Your task to perform on an android device: Open settings on Google Maps Image 0: 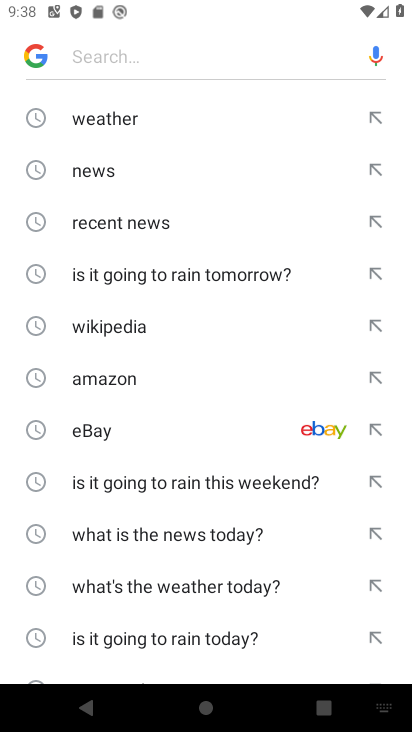
Step 0: press back button
Your task to perform on an android device: Open settings on Google Maps Image 1: 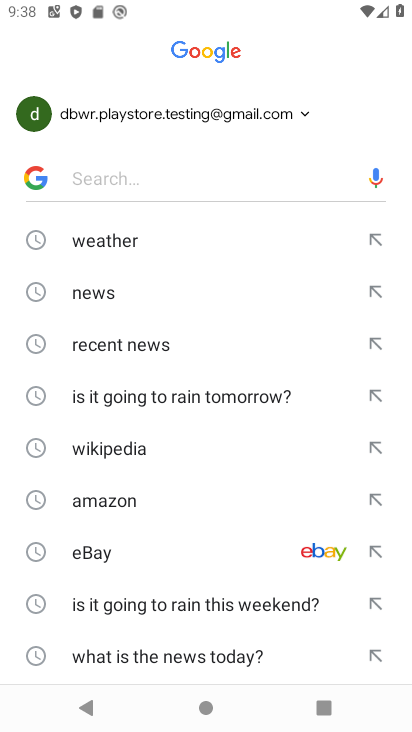
Step 1: press back button
Your task to perform on an android device: Open settings on Google Maps Image 2: 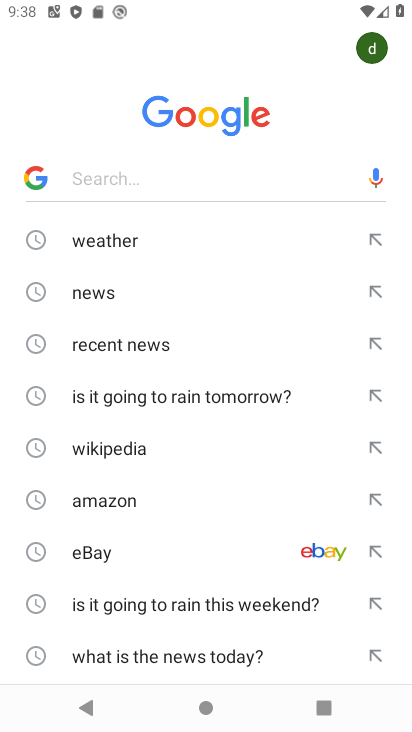
Step 2: press back button
Your task to perform on an android device: Open settings on Google Maps Image 3: 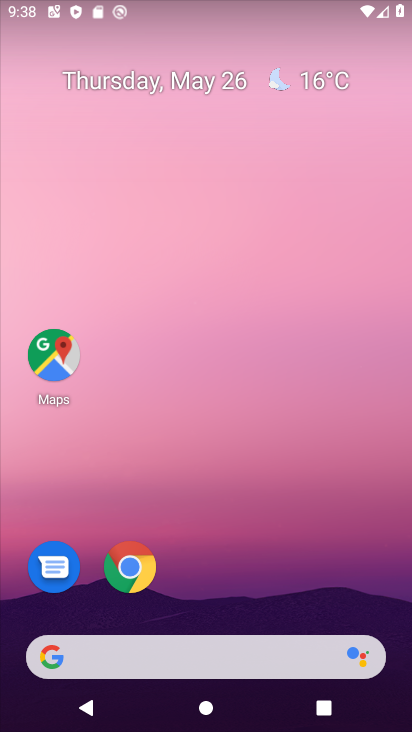
Step 3: click (57, 352)
Your task to perform on an android device: Open settings on Google Maps Image 4: 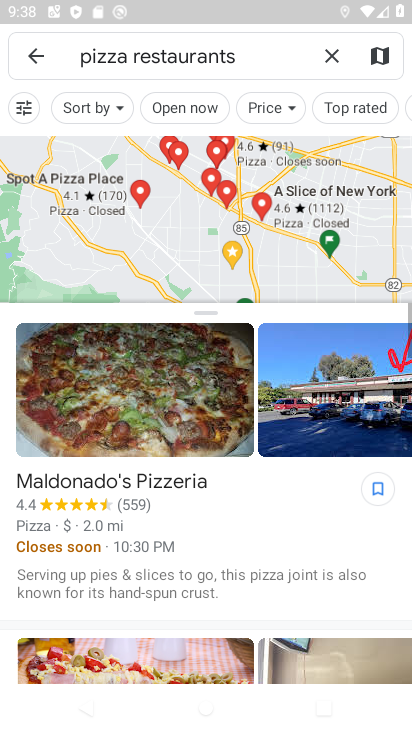
Step 4: click (25, 50)
Your task to perform on an android device: Open settings on Google Maps Image 5: 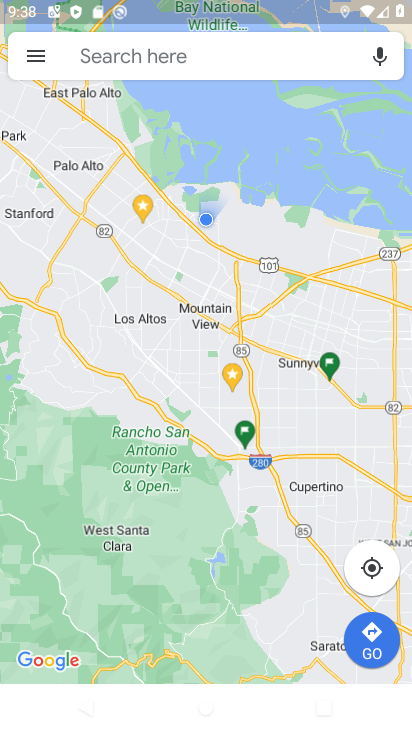
Step 5: click (41, 55)
Your task to perform on an android device: Open settings on Google Maps Image 6: 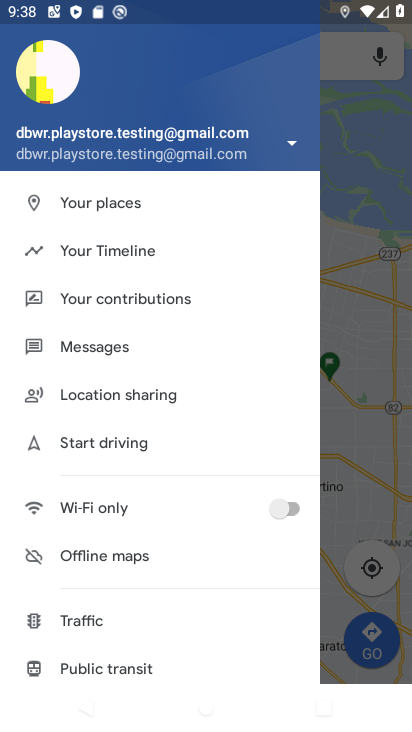
Step 6: drag from (197, 669) to (199, 262)
Your task to perform on an android device: Open settings on Google Maps Image 7: 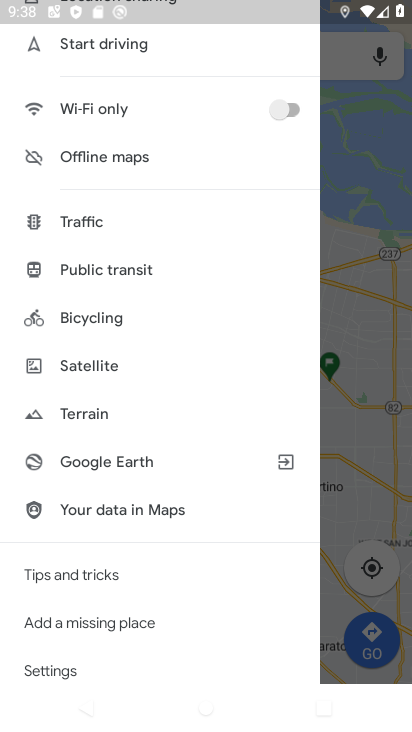
Step 7: click (42, 670)
Your task to perform on an android device: Open settings on Google Maps Image 8: 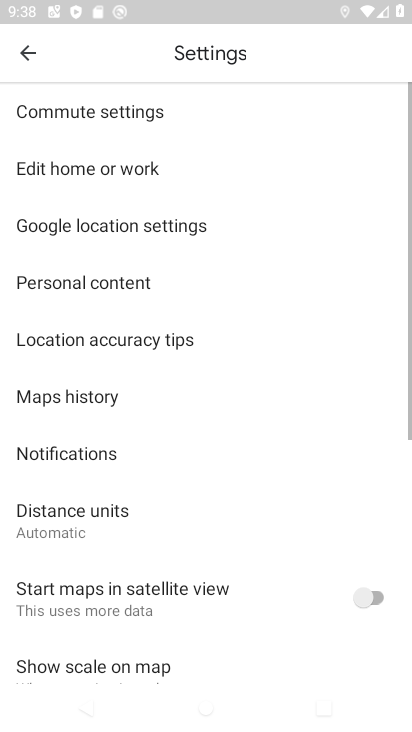
Step 8: task complete